Your task to perform on an android device: open app "VLC for Android" (install if not already installed) Image 0: 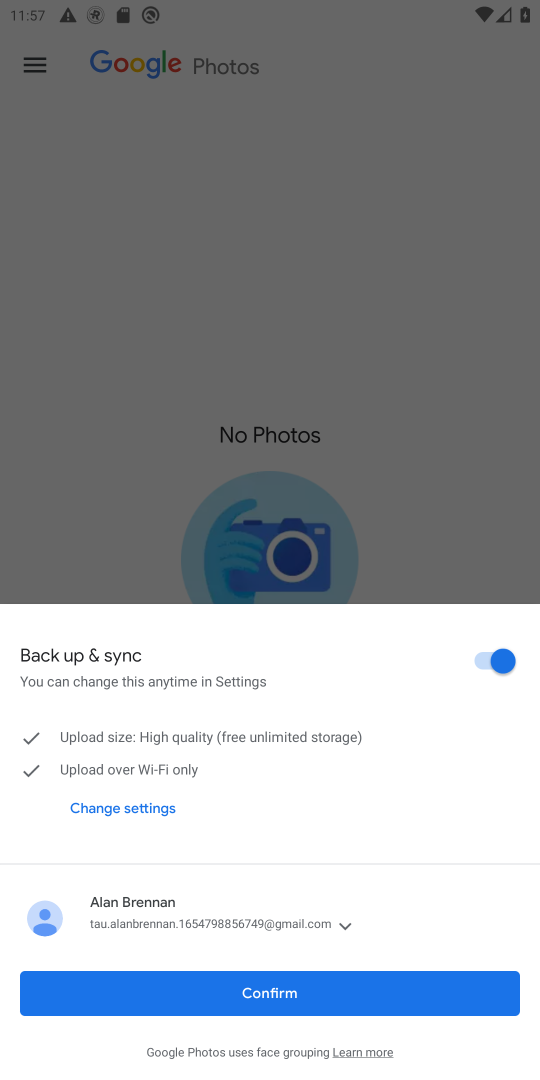
Step 0: press home button
Your task to perform on an android device: open app "VLC for Android" (install if not already installed) Image 1: 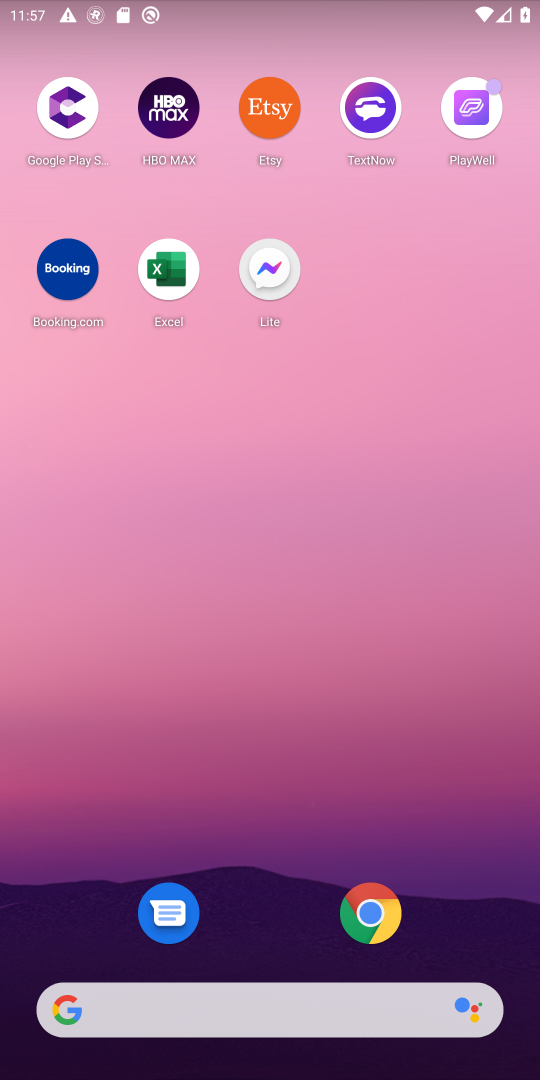
Step 1: drag from (248, 990) to (294, 310)
Your task to perform on an android device: open app "VLC for Android" (install if not already installed) Image 2: 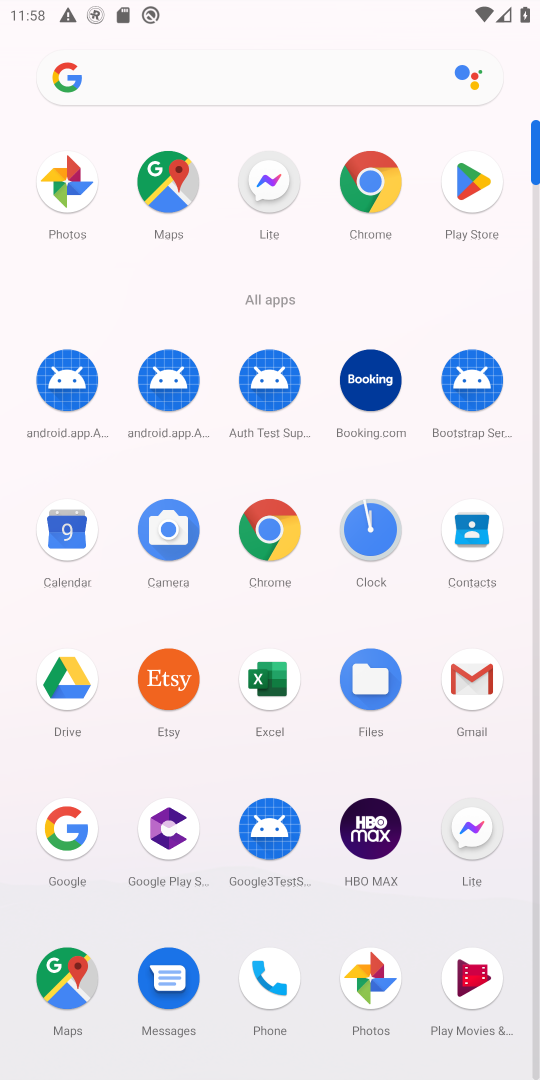
Step 2: click (489, 175)
Your task to perform on an android device: open app "VLC for Android" (install if not already installed) Image 3: 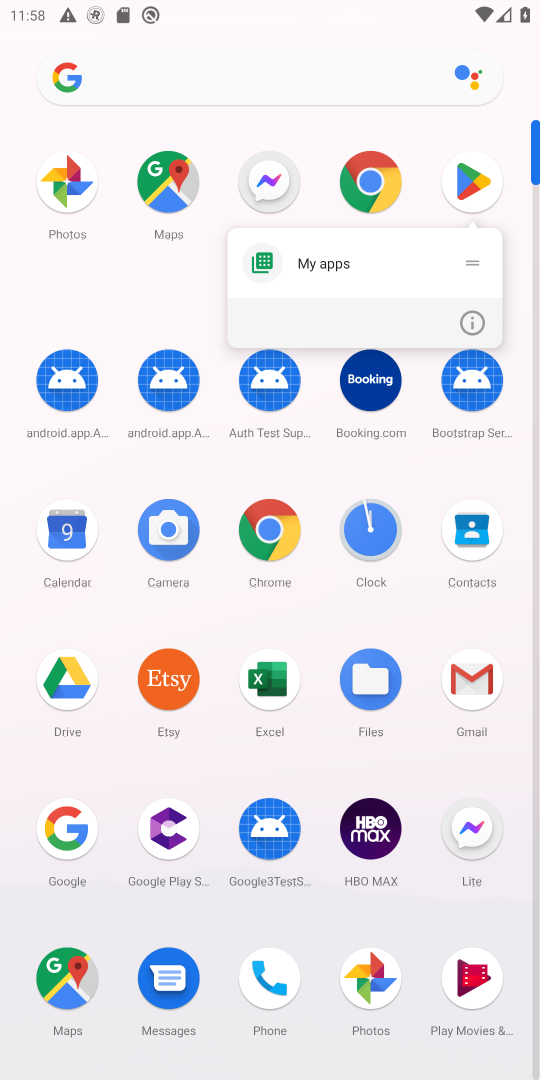
Step 3: click (476, 181)
Your task to perform on an android device: open app "VLC for Android" (install if not already installed) Image 4: 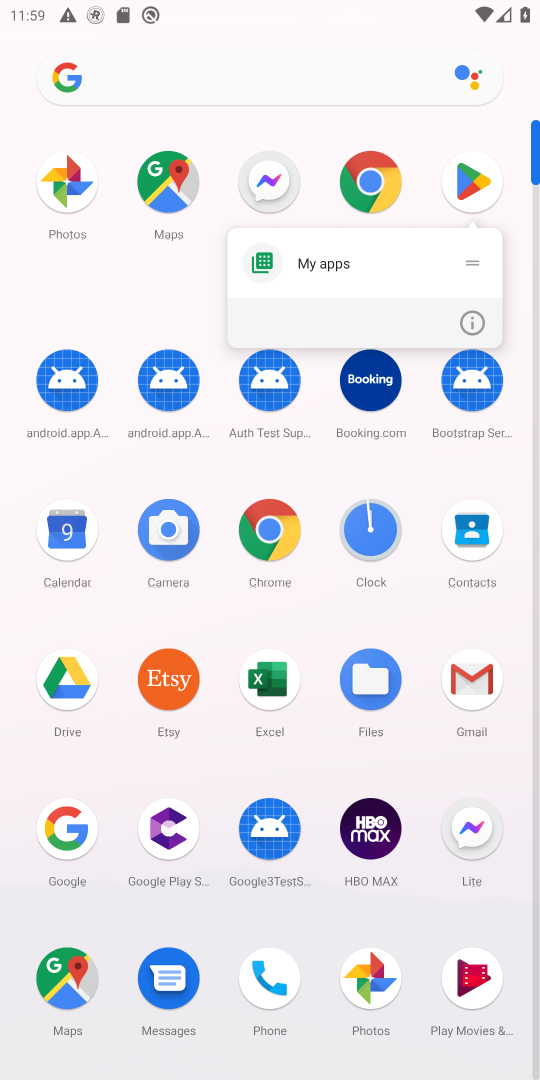
Step 4: click (485, 186)
Your task to perform on an android device: open app "VLC for Android" (install if not already installed) Image 5: 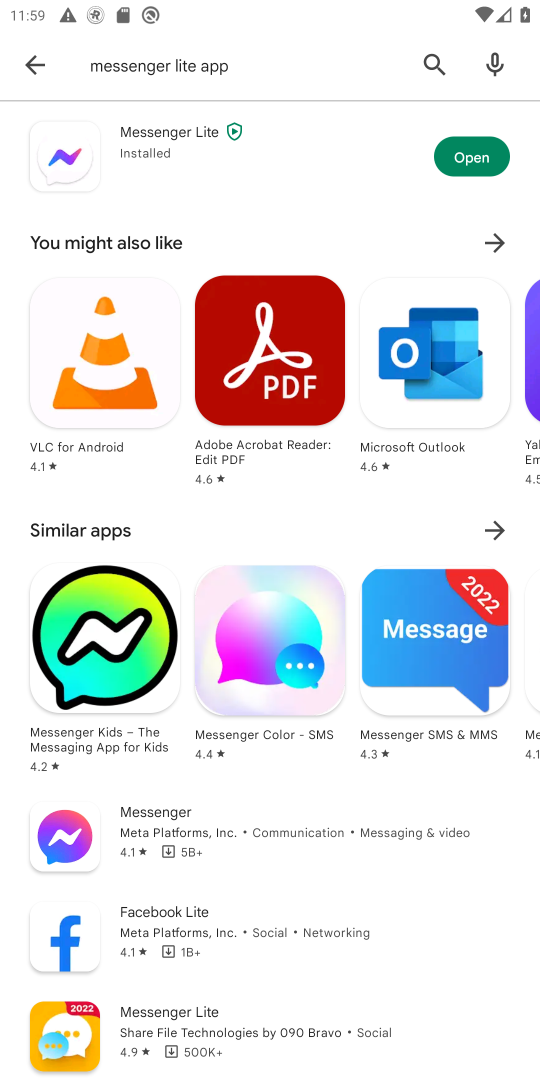
Step 5: click (44, 61)
Your task to perform on an android device: open app "VLC for Android" (install if not already installed) Image 6: 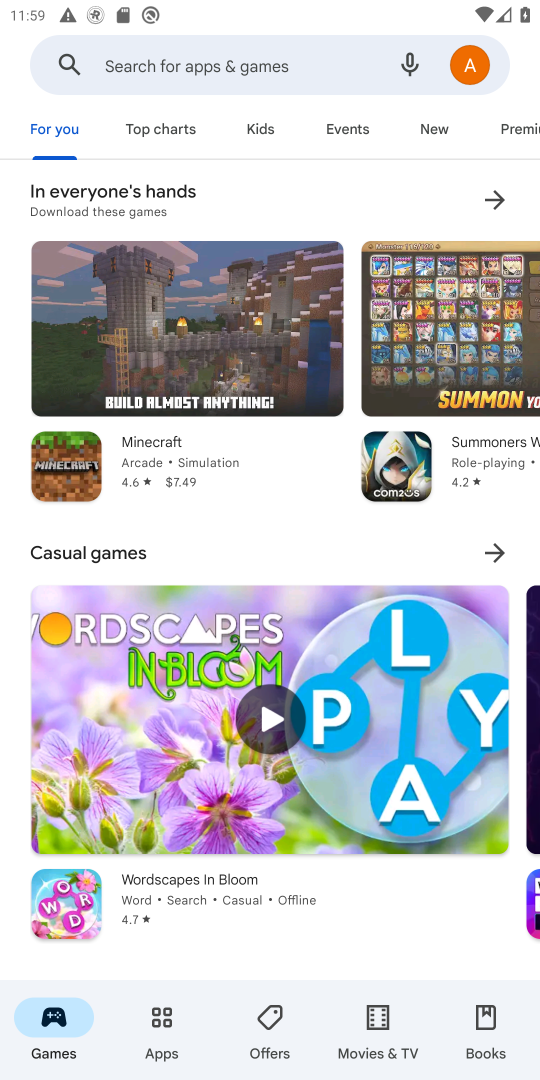
Step 6: click (235, 48)
Your task to perform on an android device: open app "VLC for Android" (install if not already installed) Image 7: 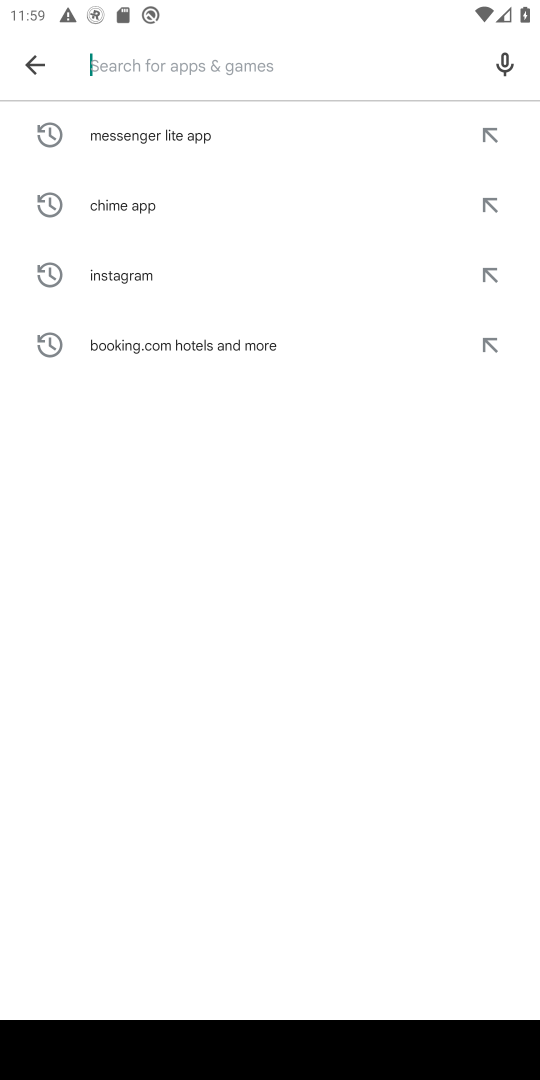
Step 7: type "VLC for Android "
Your task to perform on an android device: open app "VLC for Android" (install if not already installed) Image 8: 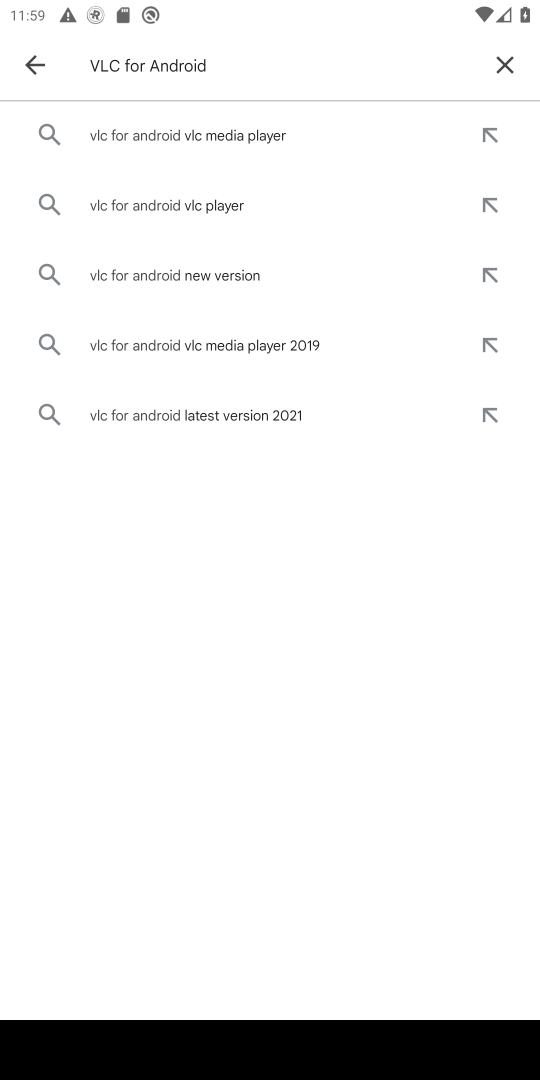
Step 8: click (230, 149)
Your task to perform on an android device: open app "VLC for Android" (install if not already installed) Image 9: 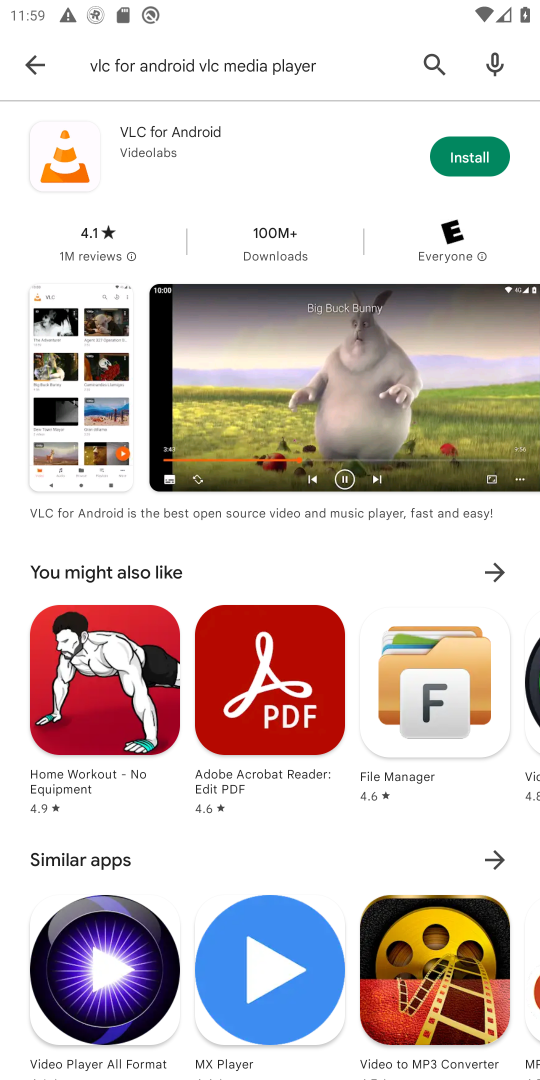
Step 9: click (480, 170)
Your task to perform on an android device: open app "VLC for Android" (install if not already installed) Image 10: 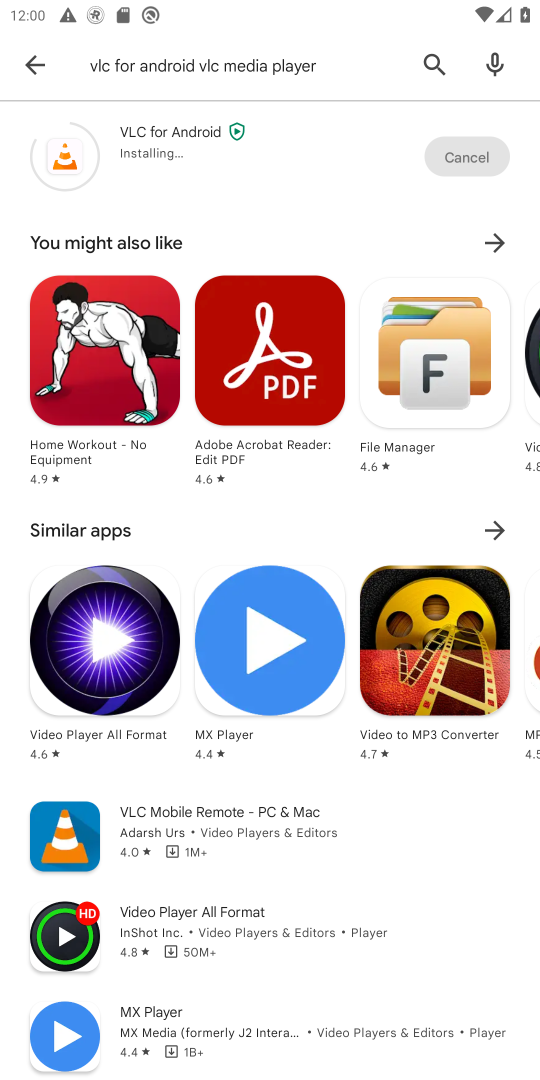
Step 10: task complete